Your task to perform on an android device: Open wifi settings Image 0: 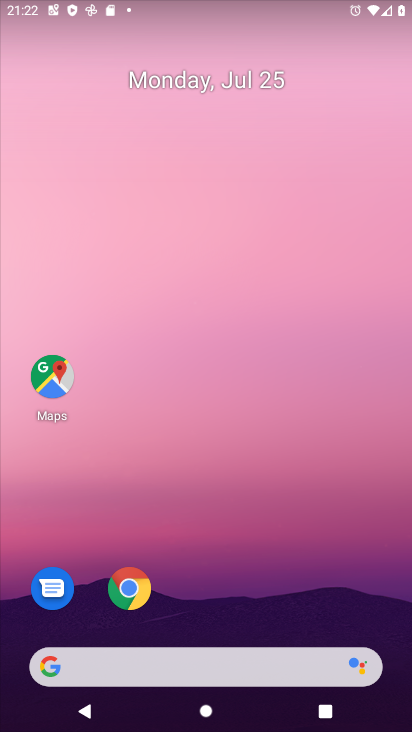
Step 0: click (208, 95)
Your task to perform on an android device: Open wifi settings Image 1: 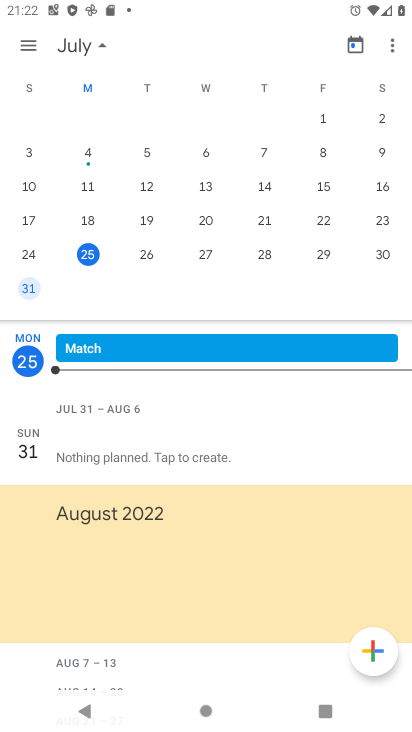
Step 1: press home button
Your task to perform on an android device: Open wifi settings Image 2: 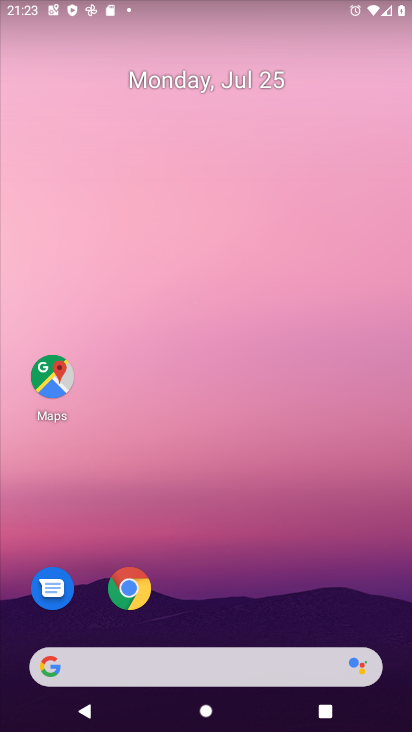
Step 2: drag from (207, 654) to (208, 284)
Your task to perform on an android device: Open wifi settings Image 3: 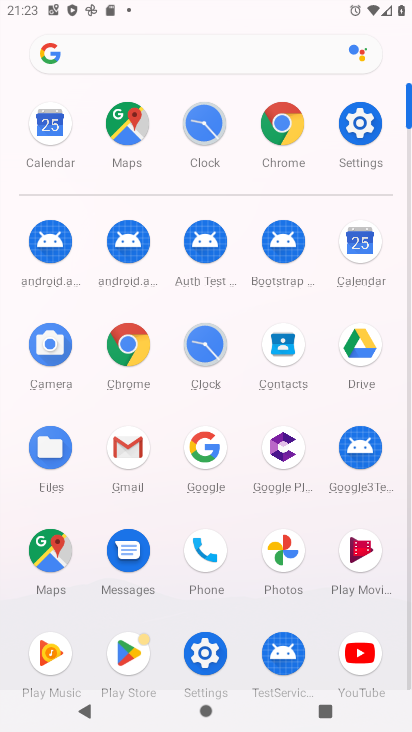
Step 3: click (363, 127)
Your task to perform on an android device: Open wifi settings Image 4: 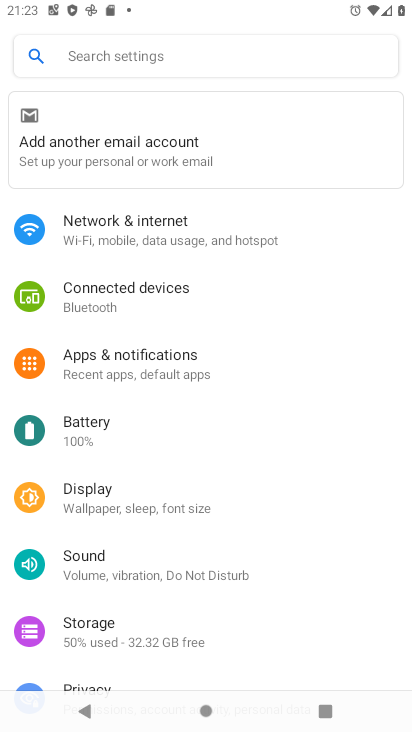
Step 4: click (156, 232)
Your task to perform on an android device: Open wifi settings Image 5: 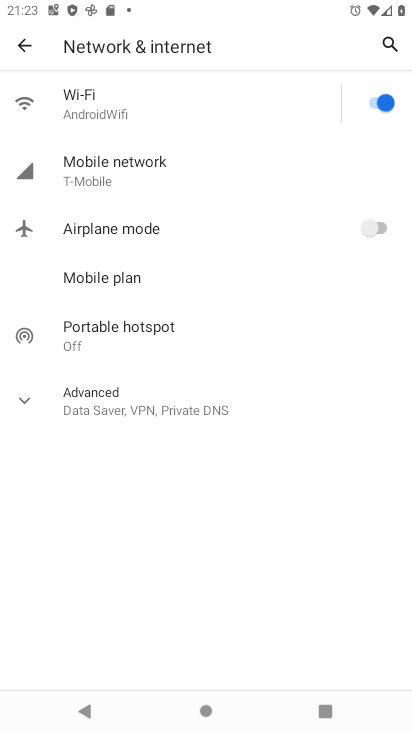
Step 5: click (72, 110)
Your task to perform on an android device: Open wifi settings Image 6: 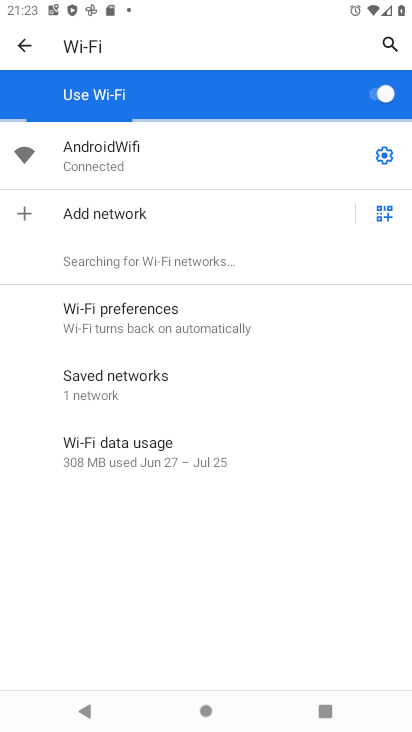
Step 6: click (383, 154)
Your task to perform on an android device: Open wifi settings Image 7: 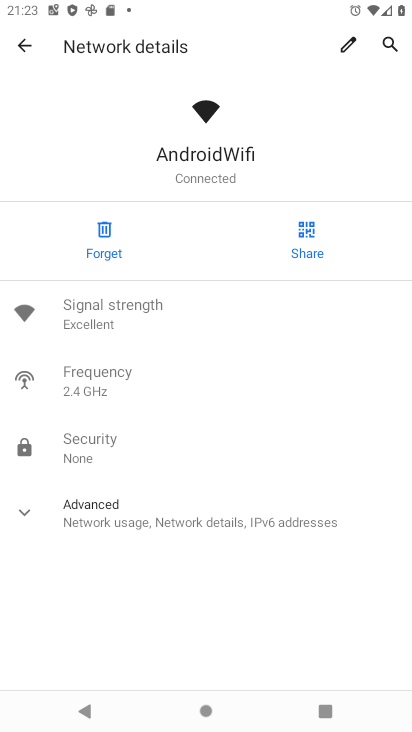
Step 7: click (113, 512)
Your task to perform on an android device: Open wifi settings Image 8: 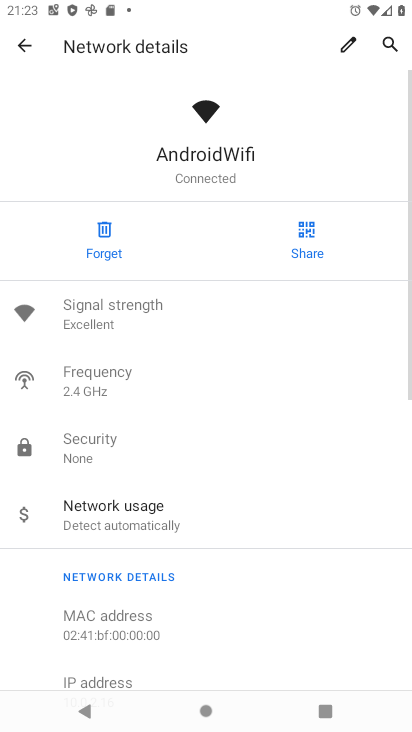
Step 8: task complete